Your task to perform on an android device: Open Chrome and go to settings Image 0: 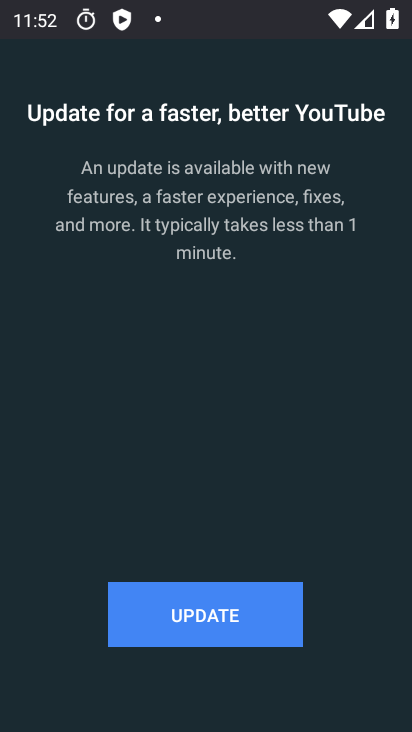
Step 0: press home button
Your task to perform on an android device: Open Chrome and go to settings Image 1: 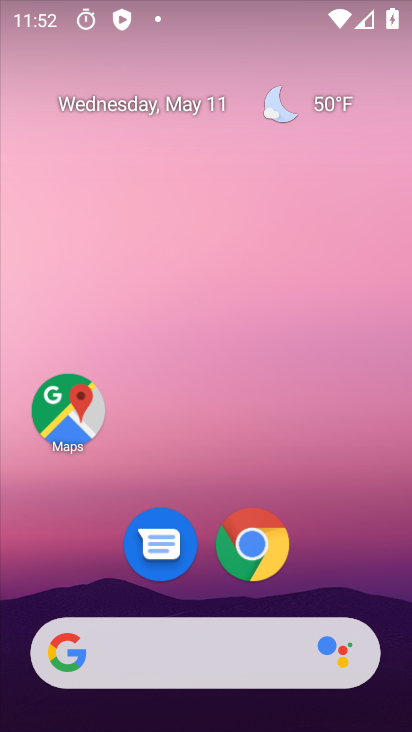
Step 1: click (262, 529)
Your task to perform on an android device: Open Chrome and go to settings Image 2: 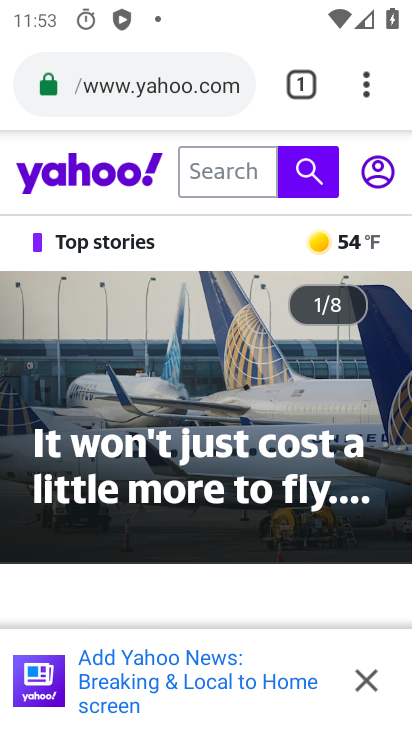
Step 2: task complete